Your task to perform on an android device: visit the assistant section in the google photos Image 0: 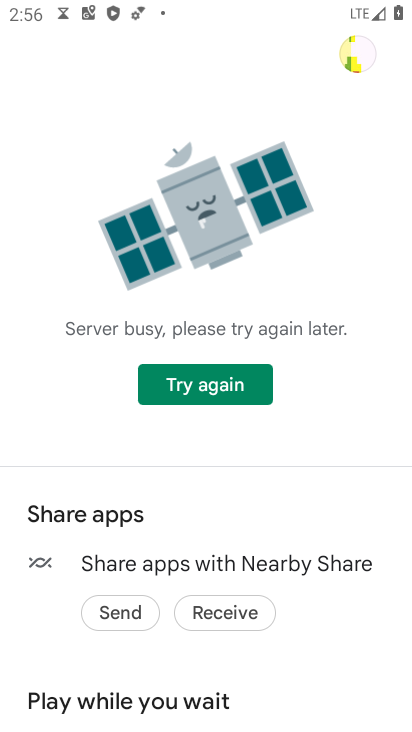
Step 0: press home button
Your task to perform on an android device: visit the assistant section in the google photos Image 1: 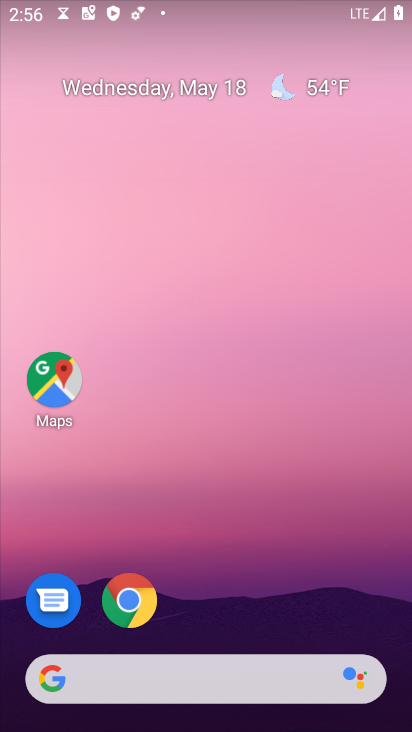
Step 1: drag from (115, 675) to (281, 197)
Your task to perform on an android device: visit the assistant section in the google photos Image 2: 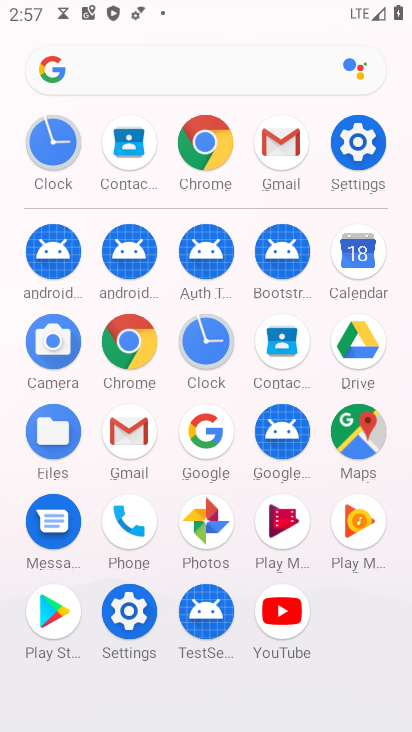
Step 2: click (209, 525)
Your task to perform on an android device: visit the assistant section in the google photos Image 3: 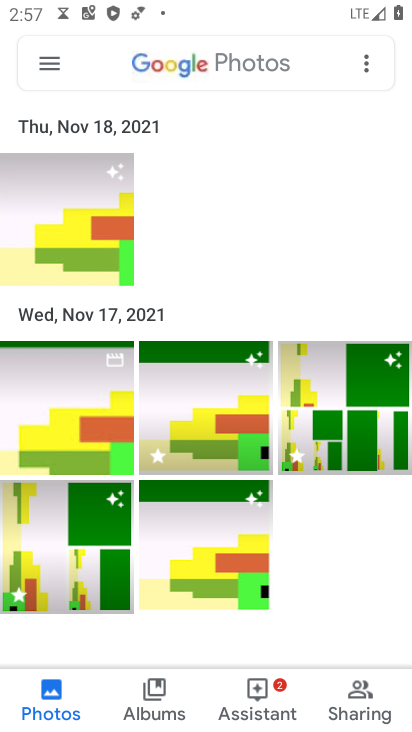
Step 3: click (261, 705)
Your task to perform on an android device: visit the assistant section in the google photos Image 4: 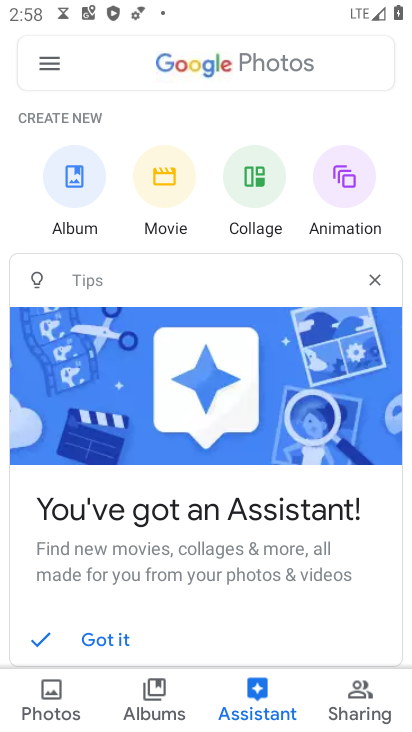
Step 4: task complete